Your task to perform on an android device: Search for vegetarian restaurants on Maps Image 0: 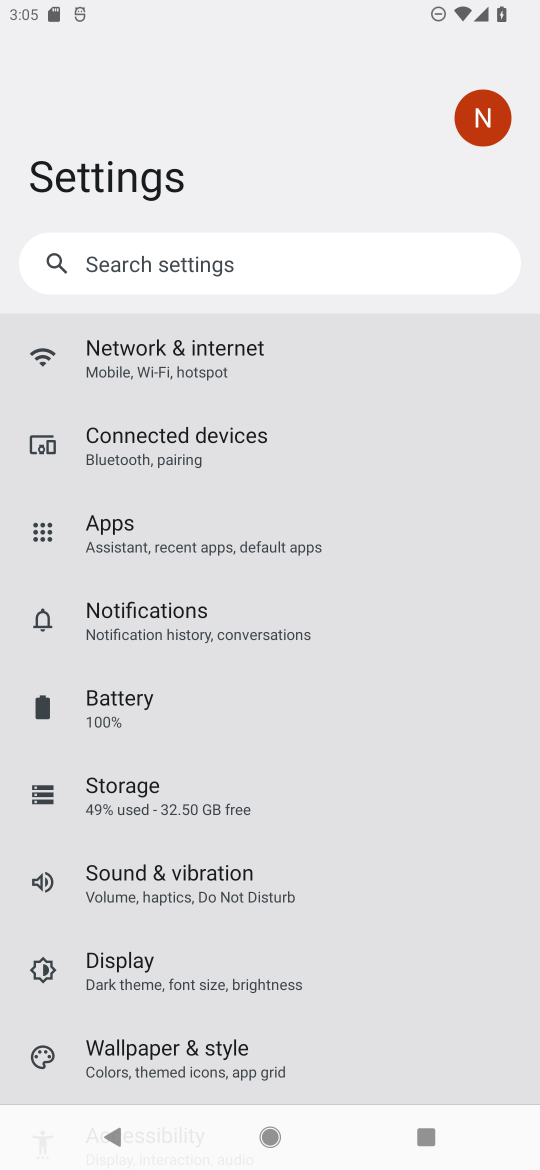
Step 0: press home button
Your task to perform on an android device: Search for vegetarian restaurants on Maps Image 1: 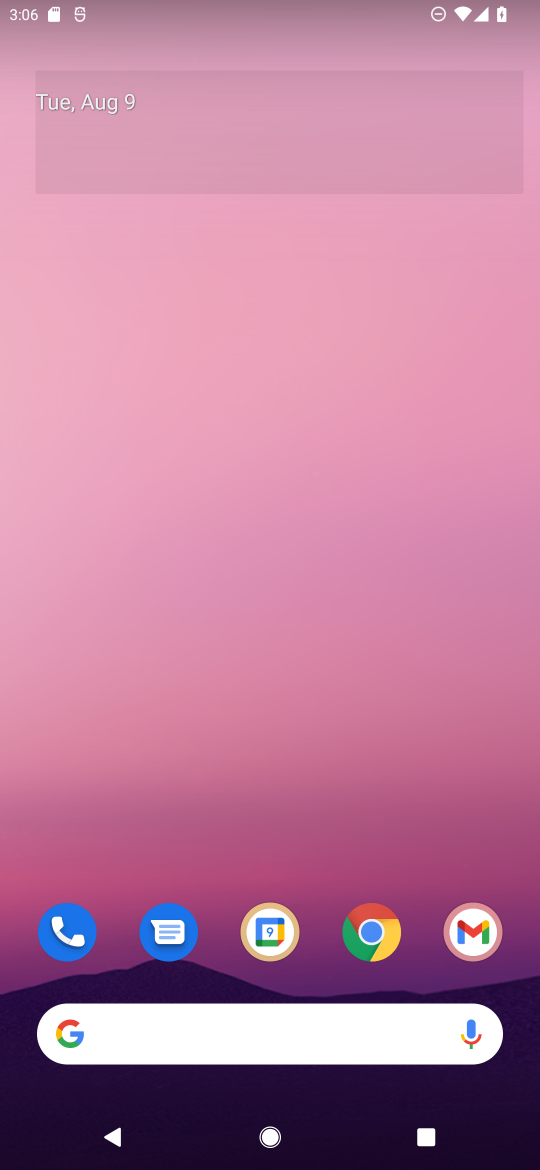
Step 1: drag from (50, 1126) to (373, 358)
Your task to perform on an android device: Search for vegetarian restaurants on Maps Image 2: 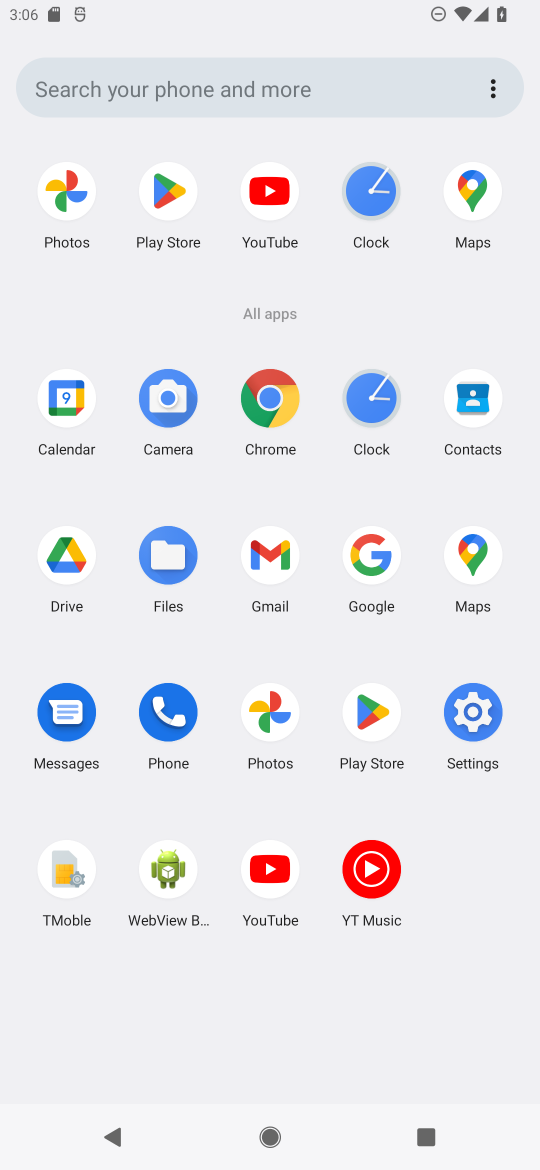
Step 2: click (481, 581)
Your task to perform on an android device: Search for vegetarian restaurants on Maps Image 3: 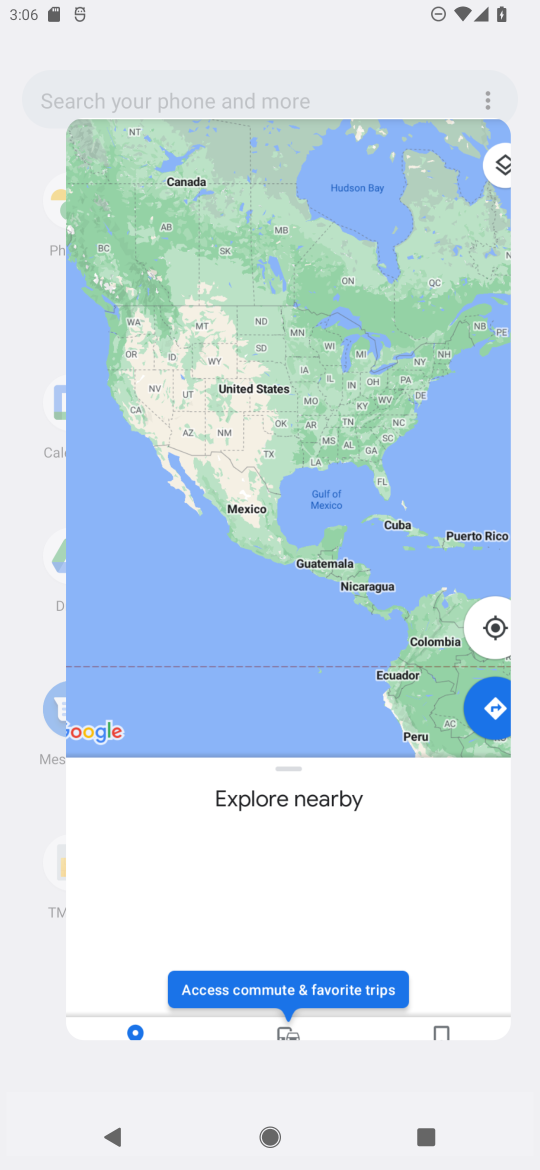
Step 3: click (481, 581)
Your task to perform on an android device: Search for vegetarian restaurants on Maps Image 4: 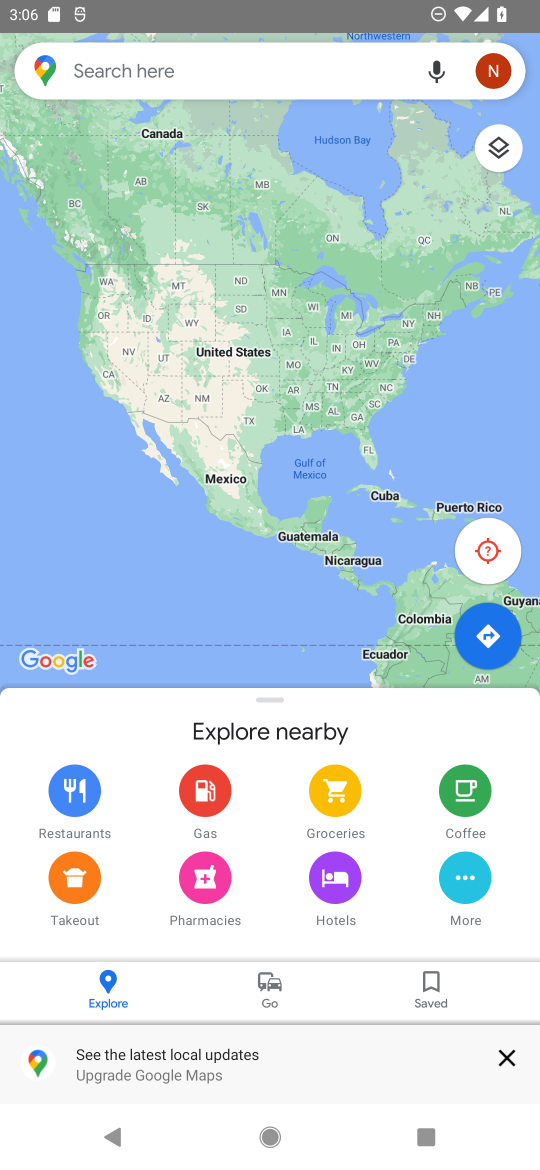
Step 4: click (160, 58)
Your task to perform on an android device: Search for vegetarian restaurants on Maps Image 5: 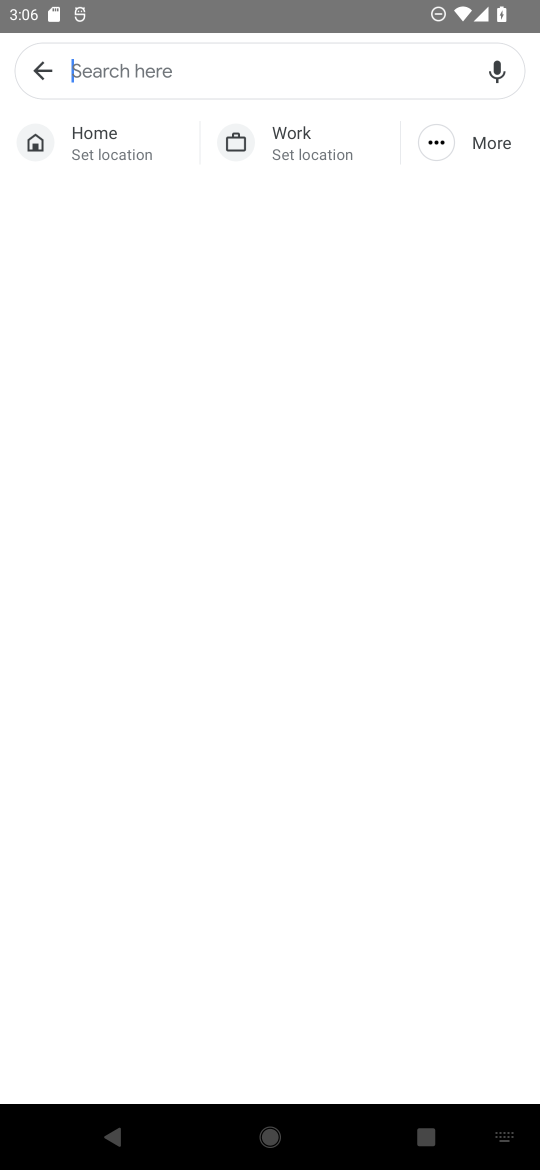
Step 5: type "vegetarian restaurants"
Your task to perform on an android device: Search for vegetarian restaurants on Maps Image 6: 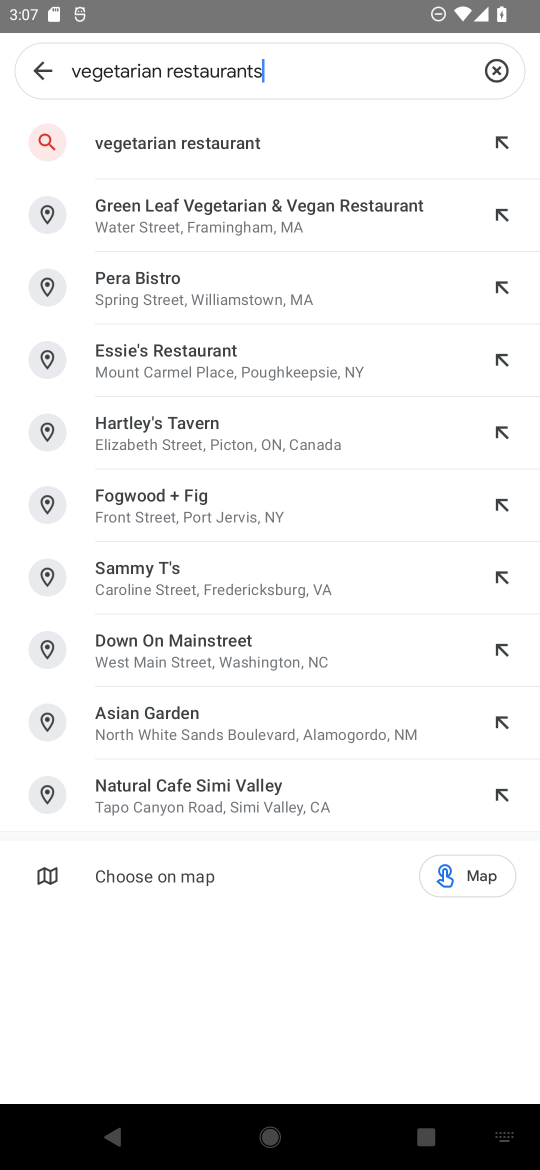
Step 6: click (202, 150)
Your task to perform on an android device: Search for vegetarian restaurants on Maps Image 7: 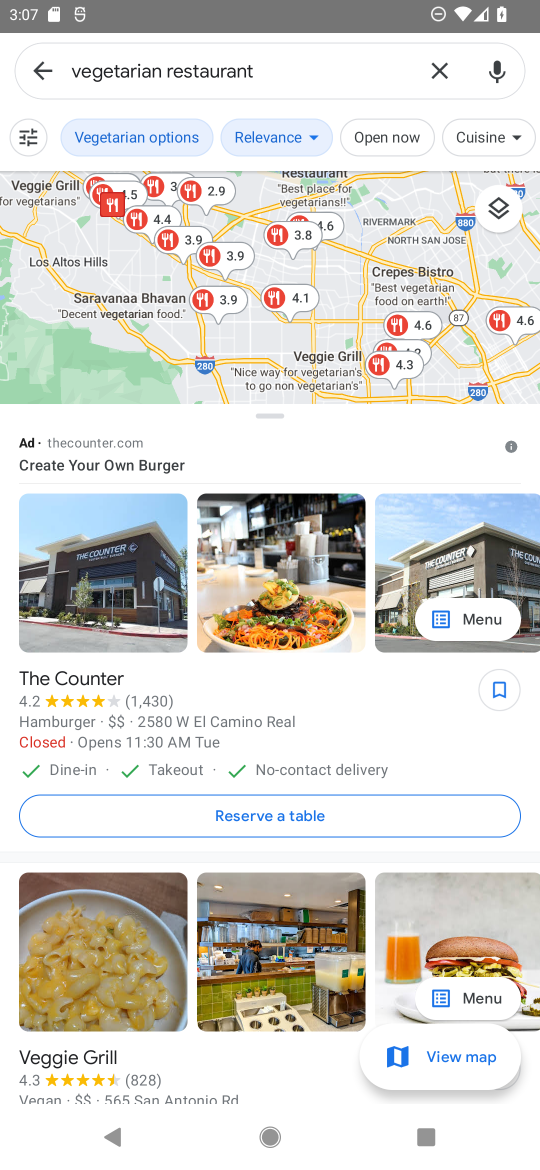
Step 7: task complete